Your task to perform on an android device: When is my next appointment? Image 0: 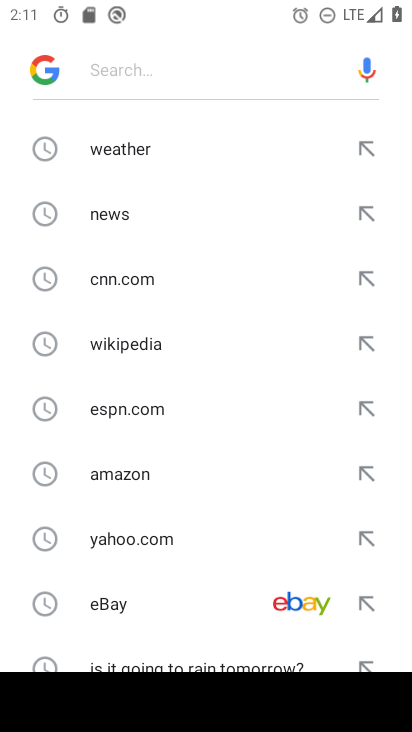
Step 0: press home button
Your task to perform on an android device: When is my next appointment? Image 1: 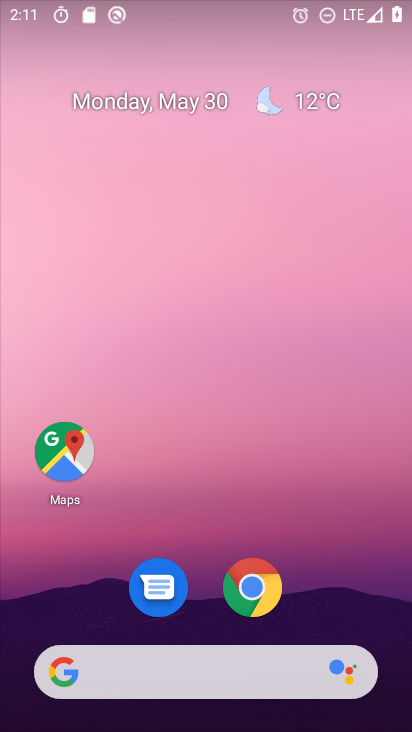
Step 1: drag from (304, 511) to (322, 71)
Your task to perform on an android device: When is my next appointment? Image 2: 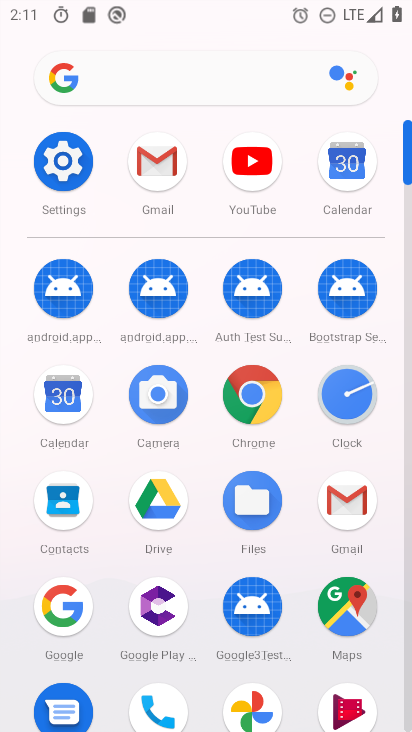
Step 2: click (58, 386)
Your task to perform on an android device: When is my next appointment? Image 3: 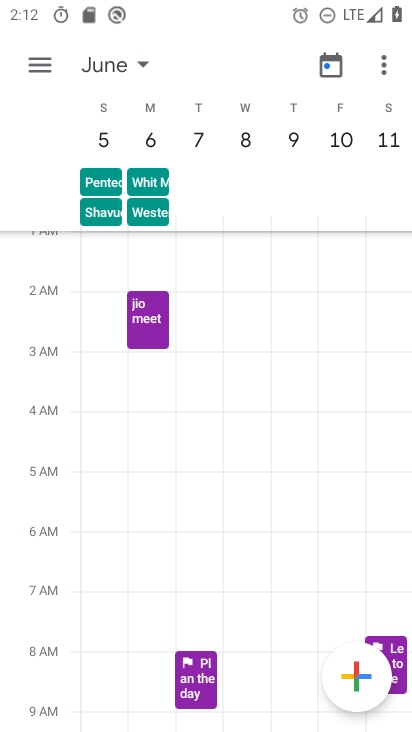
Step 3: click (124, 55)
Your task to perform on an android device: When is my next appointment? Image 4: 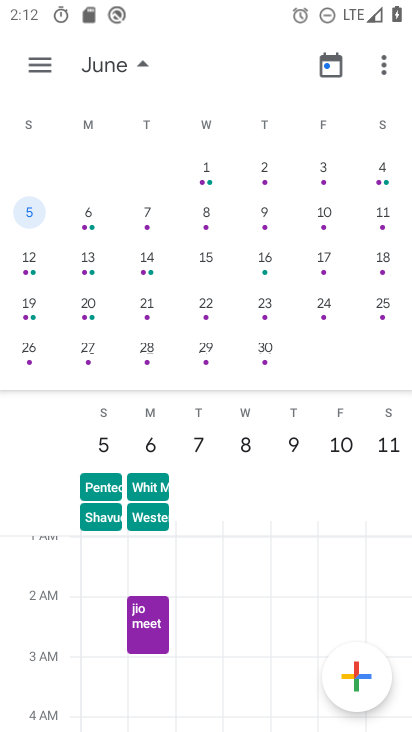
Step 4: drag from (55, 229) to (324, 311)
Your task to perform on an android device: When is my next appointment? Image 5: 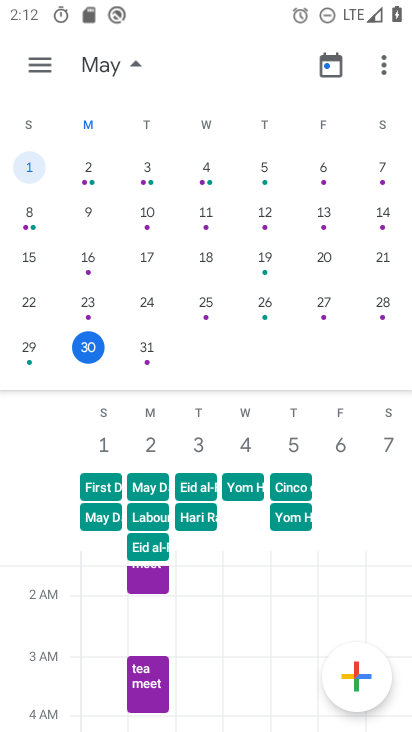
Step 5: click (82, 337)
Your task to perform on an android device: When is my next appointment? Image 6: 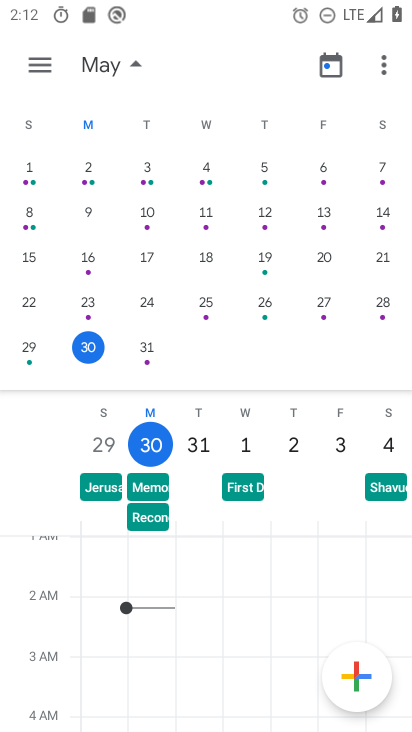
Step 6: task complete